Your task to perform on an android device: open app "YouTube Kids" (install if not already installed), go to login, and select forgot password Image 0: 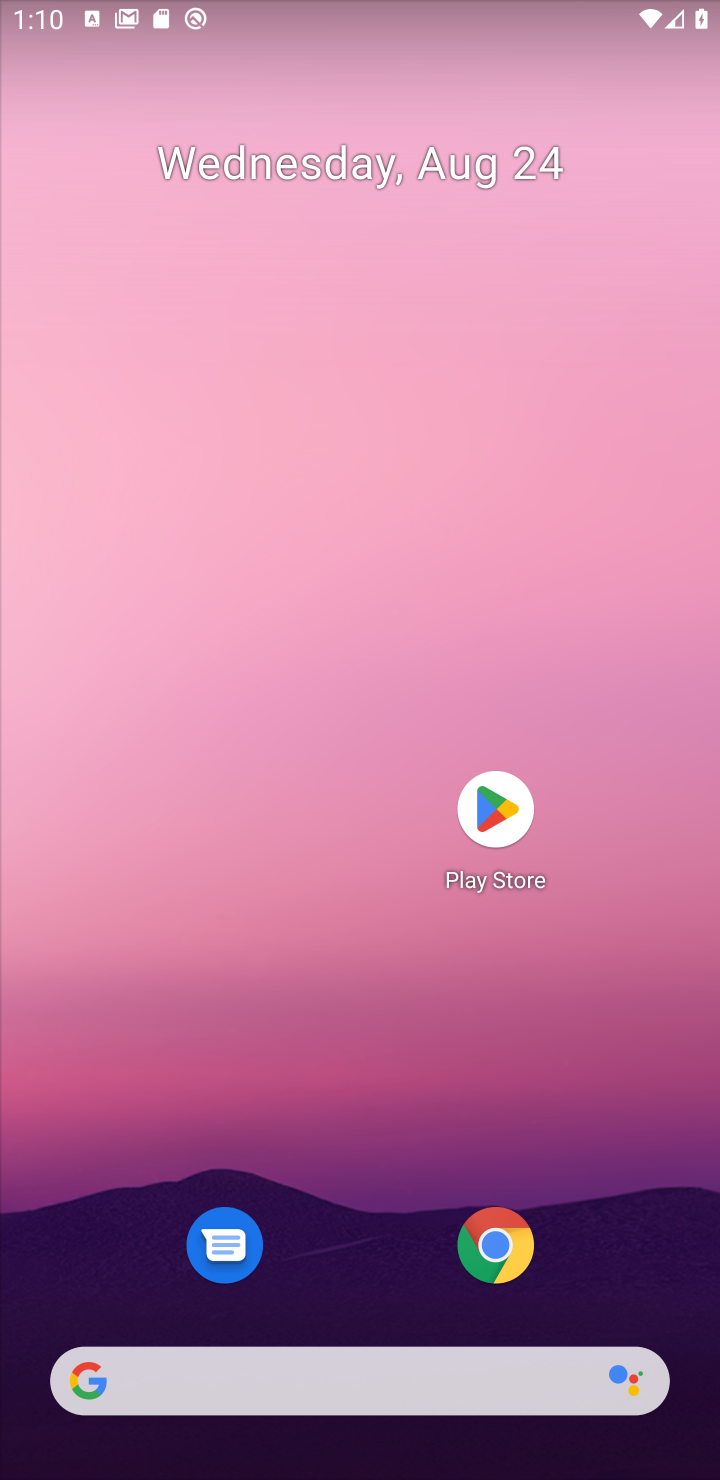
Step 0: click (489, 805)
Your task to perform on an android device: open app "YouTube Kids" (install if not already installed), go to login, and select forgot password Image 1: 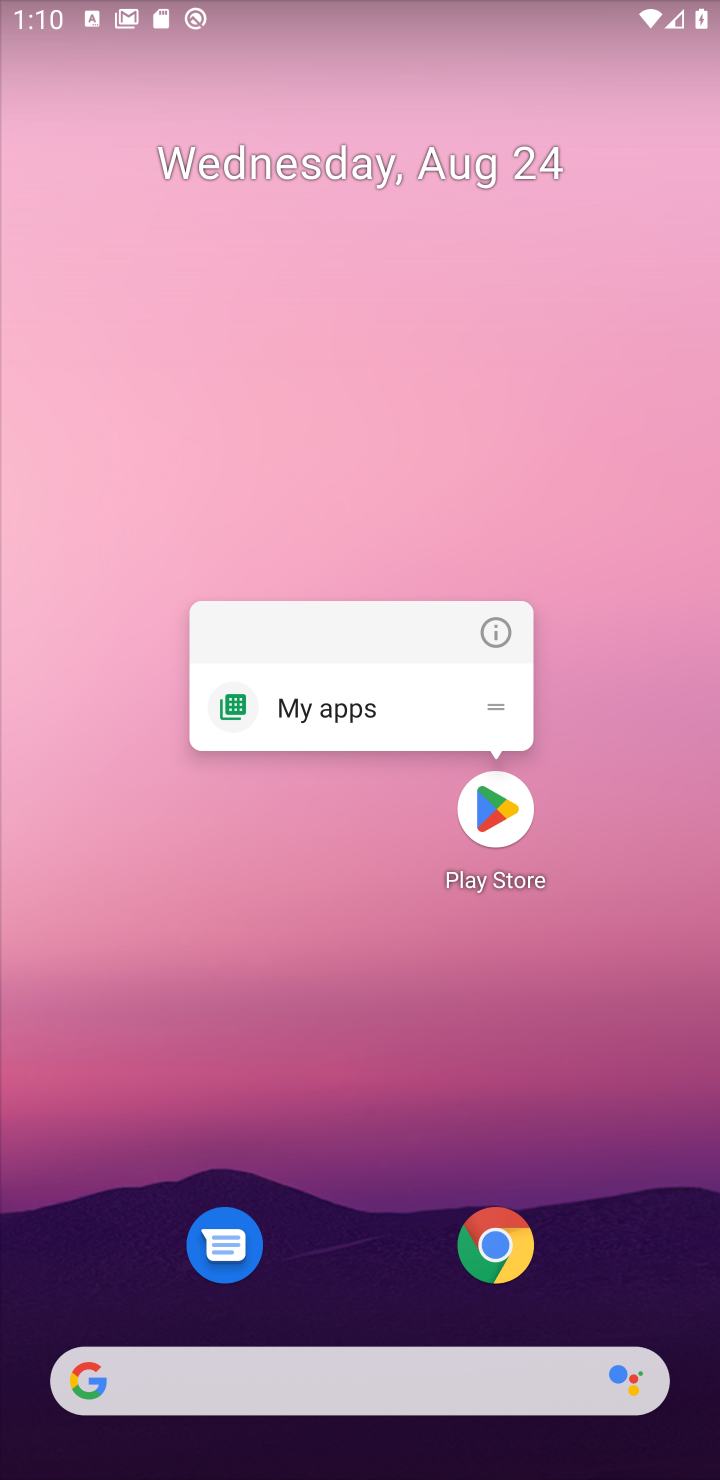
Step 1: click (491, 797)
Your task to perform on an android device: open app "YouTube Kids" (install if not already installed), go to login, and select forgot password Image 2: 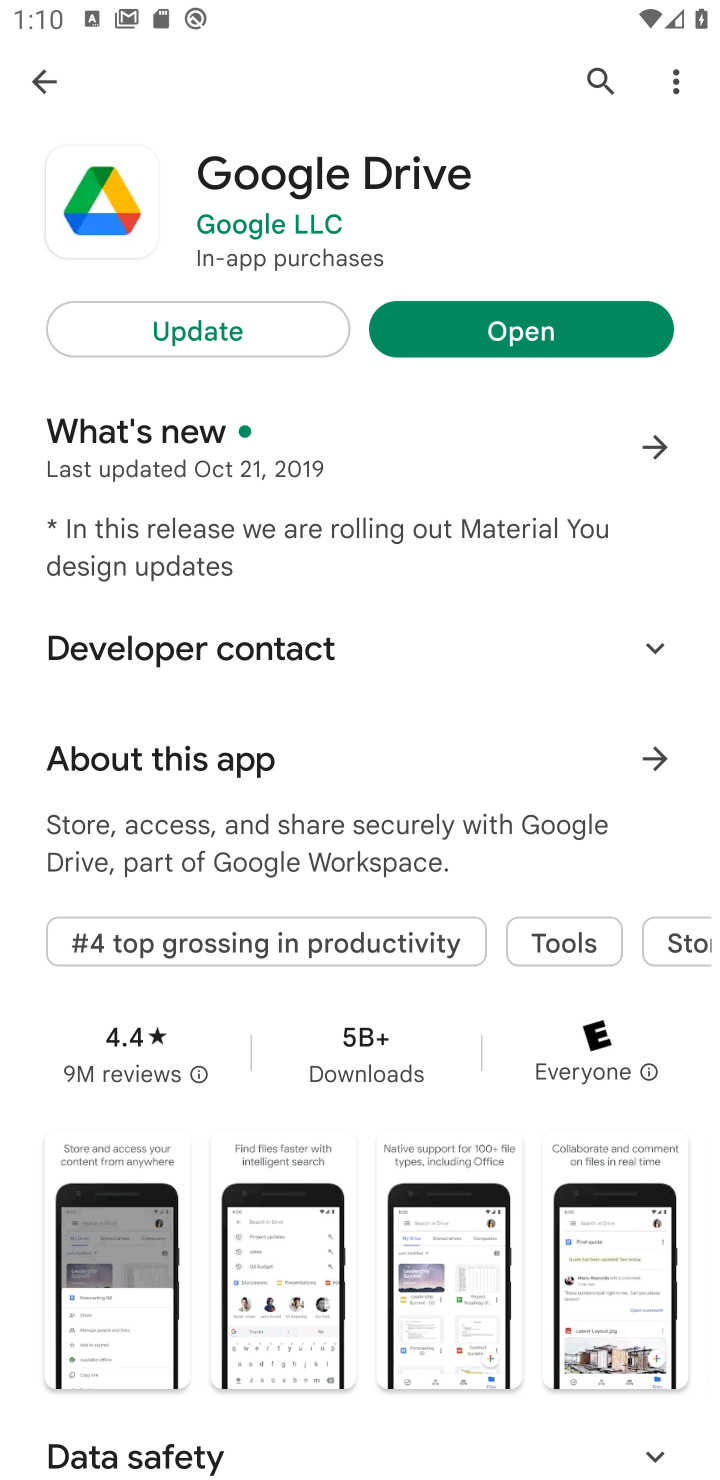
Step 2: click (596, 58)
Your task to perform on an android device: open app "YouTube Kids" (install if not already installed), go to login, and select forgot password Image 3: 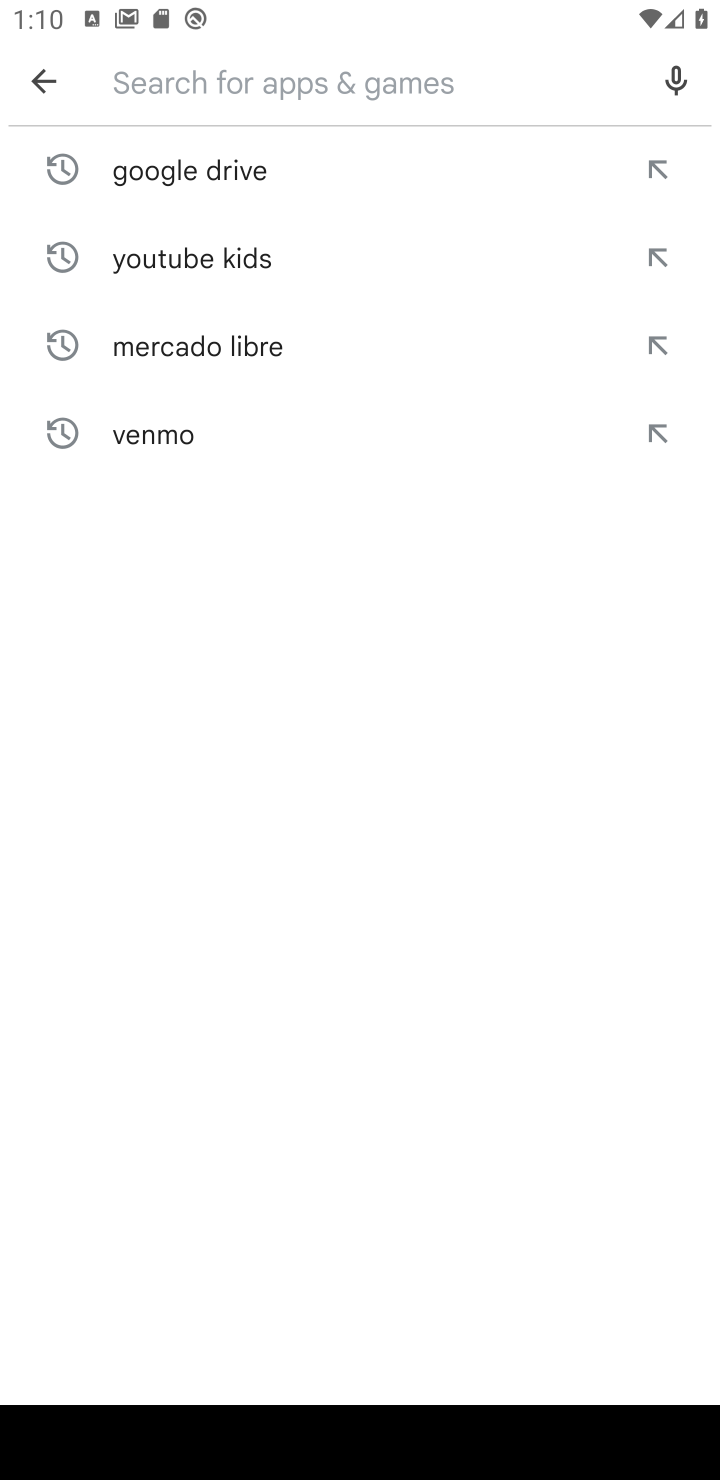
Step 3: click (195, 273)
Your task to perform on an android device: open app "YouTube Kids" (install if not already installed), go to login, and select forgot password Image 4: 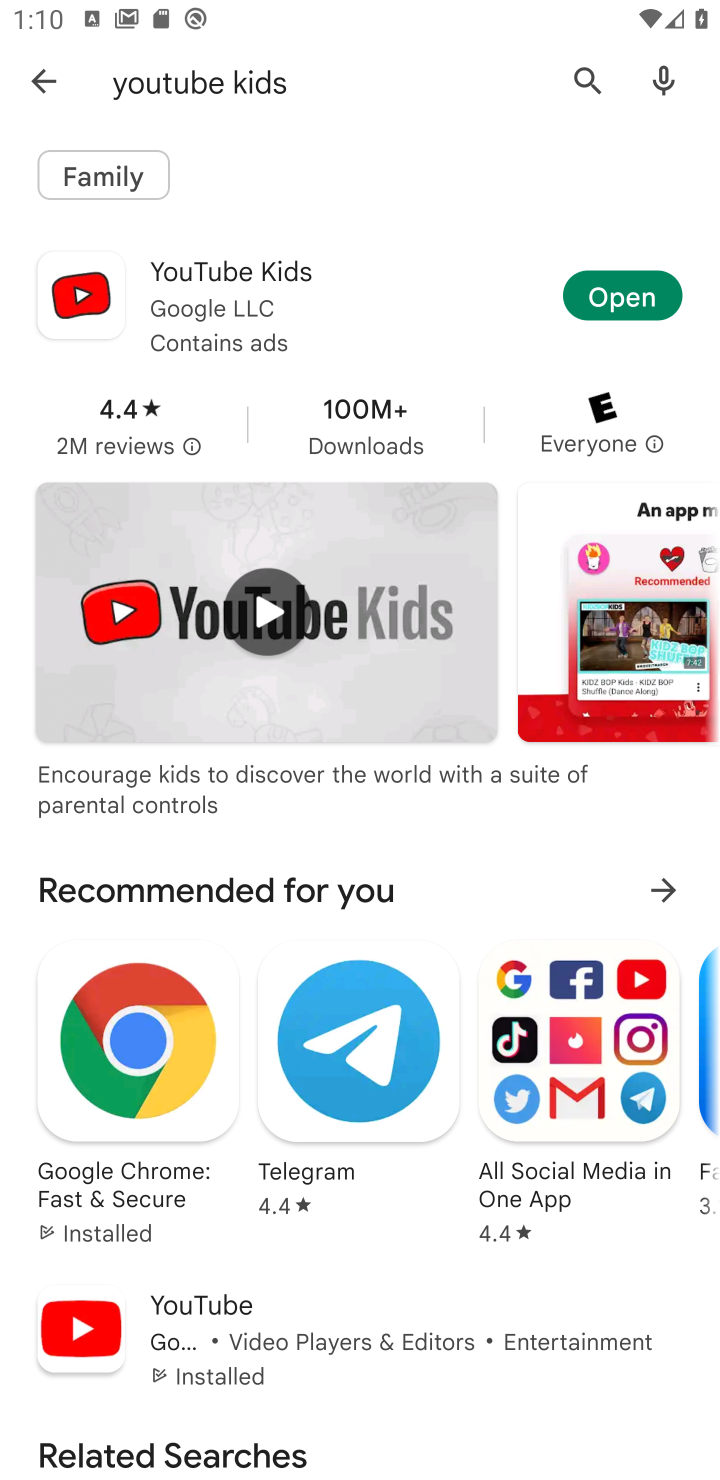
Step 4: click (616, 266)
Your task to perform on an android device: open app "YouTube Kids" (install if not already installed), go to login, and select forgot password Image 5: 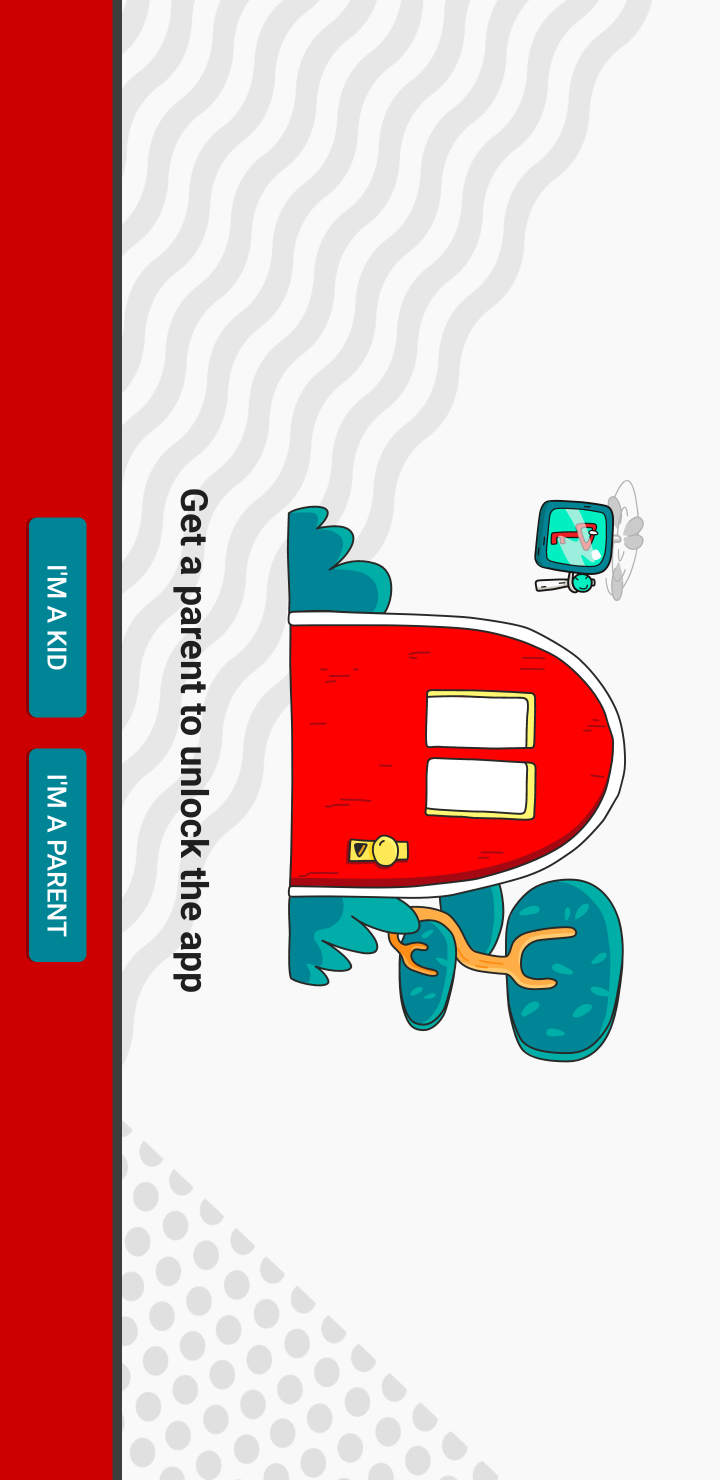
Step 5: task complete